Your task to perform on an android device: read, delete, or share a saved page in the chrome app Image 0: 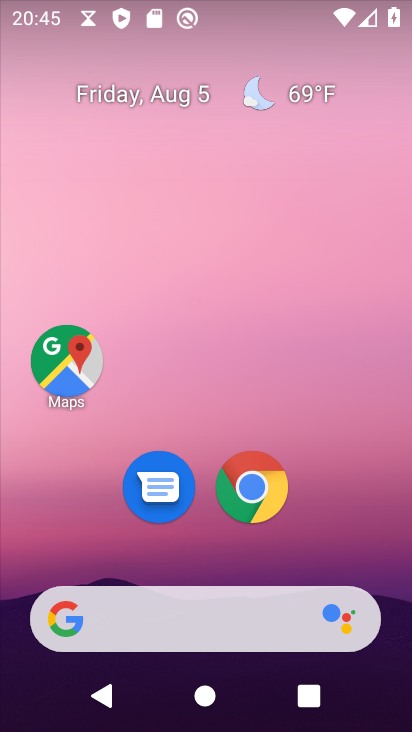
Step 0: click (260, 495)
Your task to perform on an android device: read, delete, or share a saved page in the chrome app Image 1: 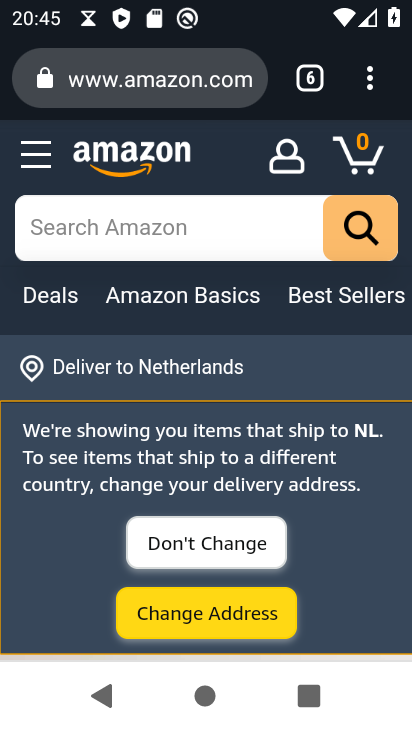
Step 1: drag from (369, 86) to (114, 507)
Your task to perform on an android device: read, delete, or share a saved page in the chrome app Image 2: 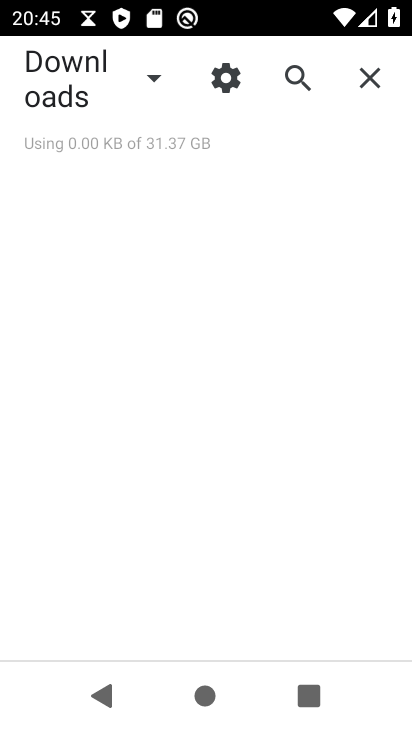
Step 2: click (137, 75)
Your task to perform on an android device: read, delete, or share a saved page in the chrome app Image 3: 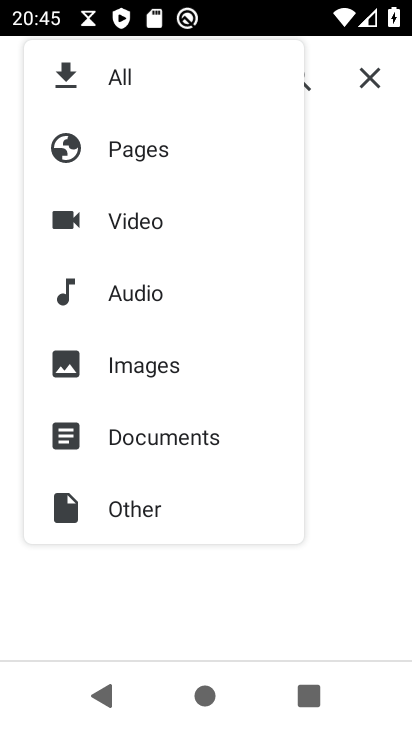
Step 3: click (135, 159)
Your task to perform on an android device: read, delete, or share a saved page in the chrome app Image 4: 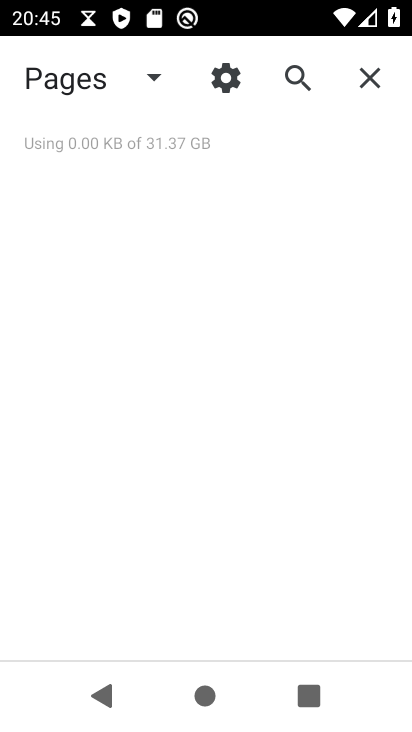
Step 4: task complete